Your task to perform on an android device: Go to eBay Image 0: 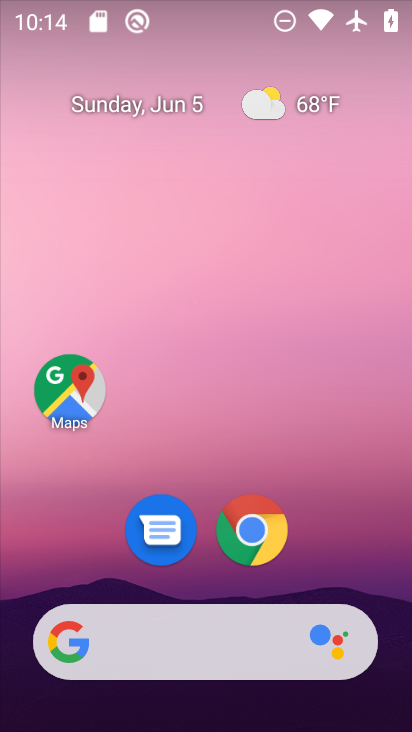
Step 0: click (255, 531)
Your task to perform on an android device: Go to eBay Image 1: 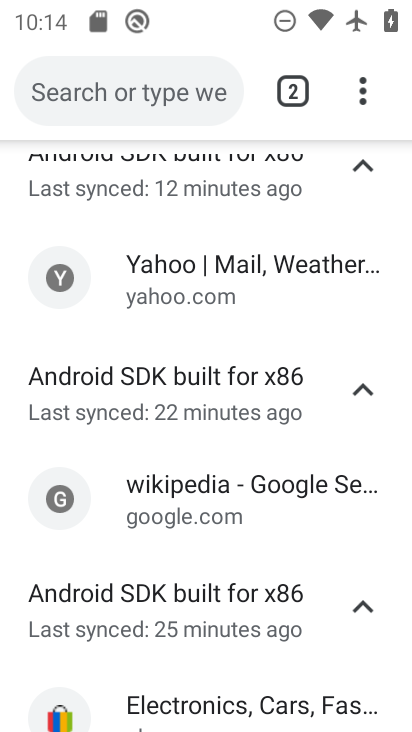
Step 1: click (108, 99)
Your task to perform on an android device: Go to eBay Image 2: 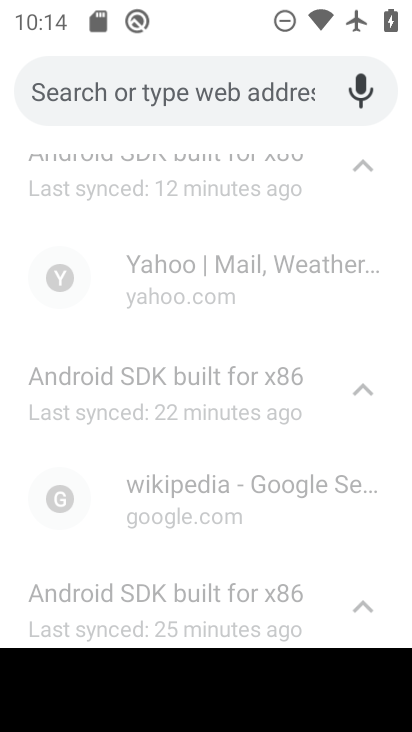
Step 2: type "ebay"
Your task to perform on an android device: Go to eBay Image 3: 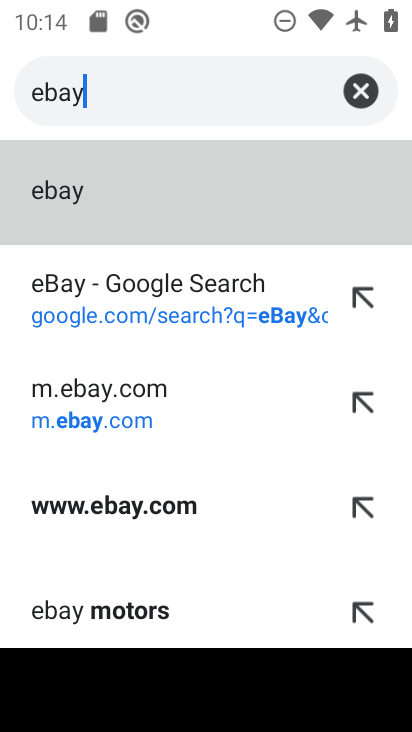
Step 3: click (62, 190)
Your task to perform on an android device: Go to eBay Image 4: 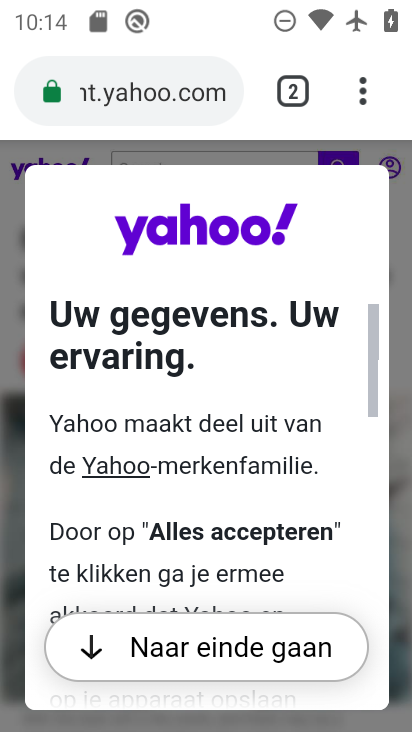
Step 4: drag from (322, 578) to (249, 138)
Your task to perform on an android device: Go to eBay Image 5: 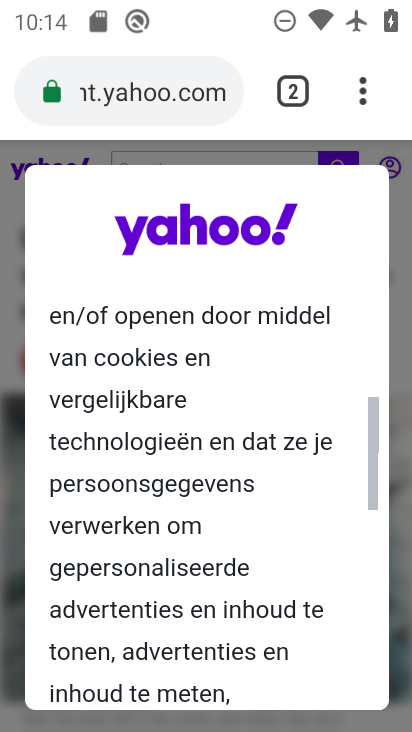
Step 5: drag from (279, 608) to (244, 94)
Your task to perform on an android device: Go to eBay Image 6: 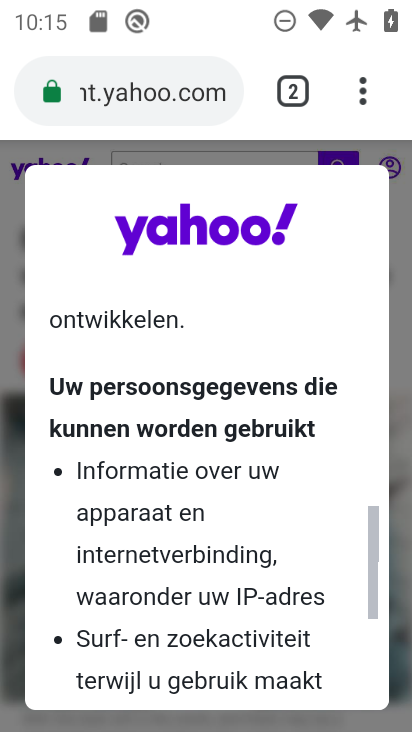
Step 6: drag from (273, 633) to (223, 64)
Your task to perform on an android device: Go to eBay Image 7: 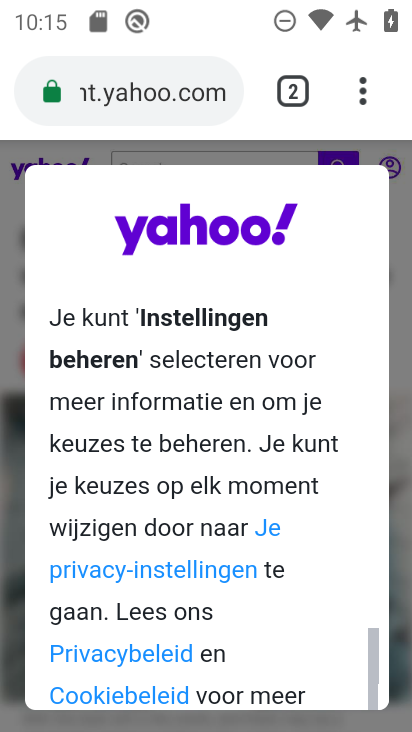
Step 7: drag from (278, 640) to (267, 105)
Your task to perform on an android device: Go to eBay Image 8: 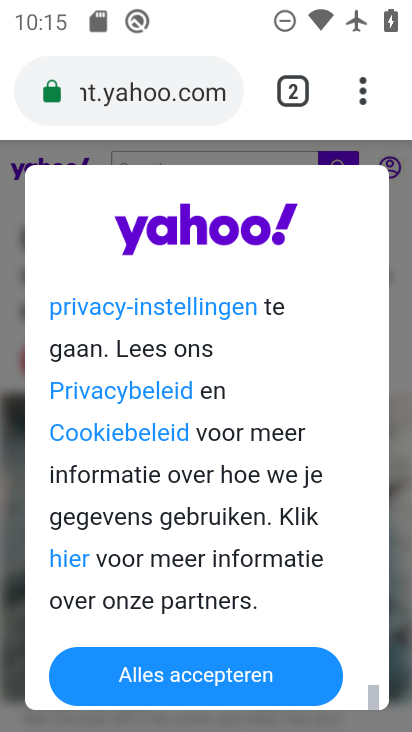
Step 8: click (186, 687)
Your task to perform on an android device: Go to eBay Image 9: 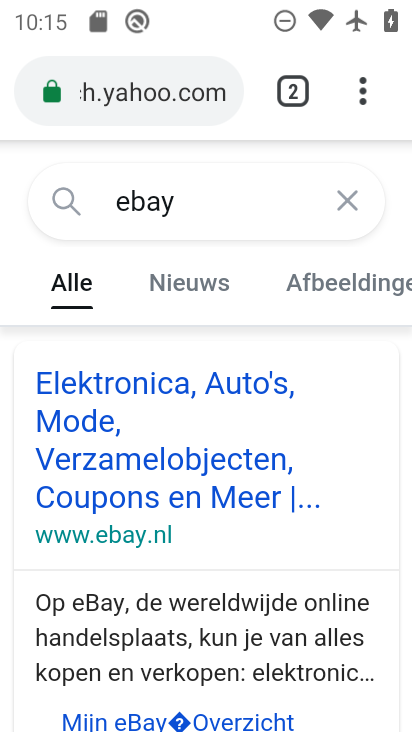
Step 9: click (107, 464)
Your task to perform on an android device: Go to eBay Image 10: 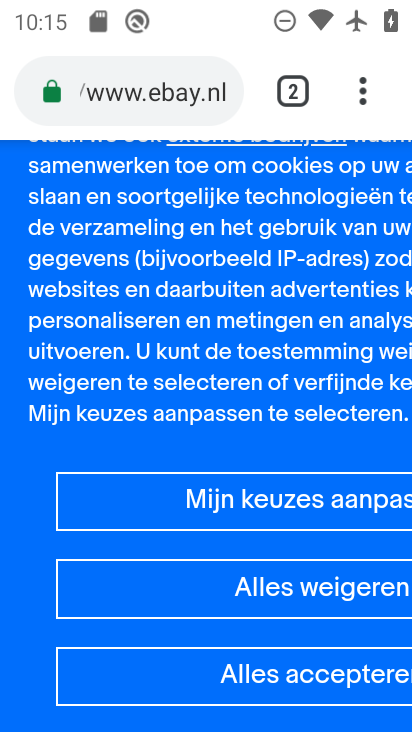
Step 10: task complete